Your task to perform on an android device: Open CNN.com Image 0: 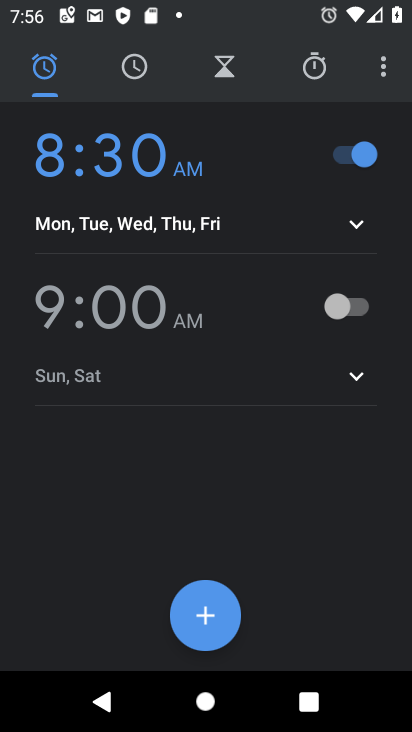
Step 0: press home button
Your task to perform on an android device: Open CNN.com Image 1: 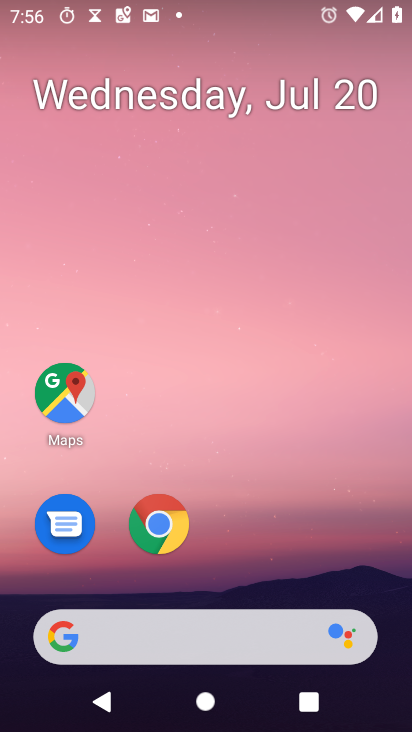
Step 1: click (159, 528)
Your task to perform on an android device: Open CNN.com Image 2: 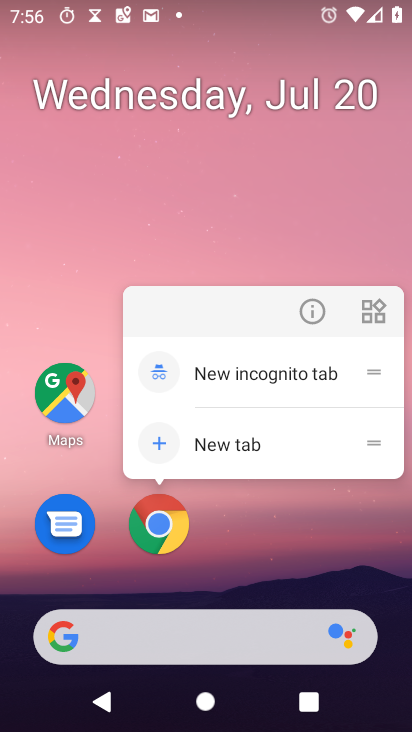
Step 2: click (159, 527)
Your task to perform on an android device: Open CNN.com Image 3: 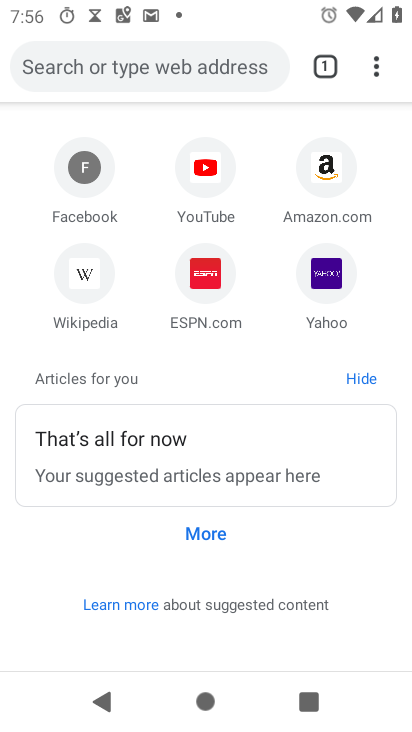
Step 3: click (186, 58)
Your task to perform on an android device: Open CNN.com Image 4: 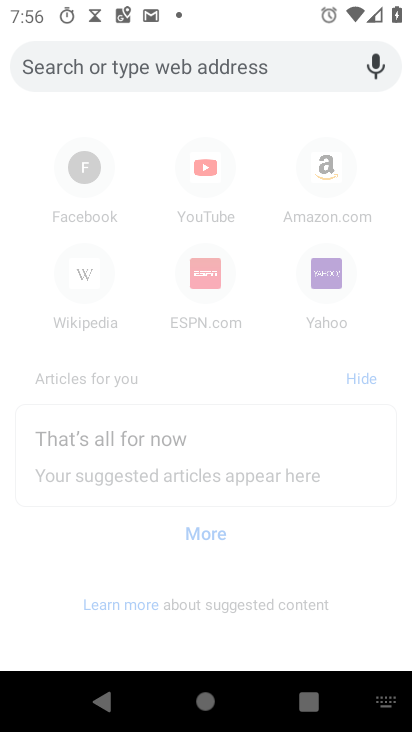
Step 4: type "cnn.com"
Your task to perform on an android device: Open CNN.com Image 5: 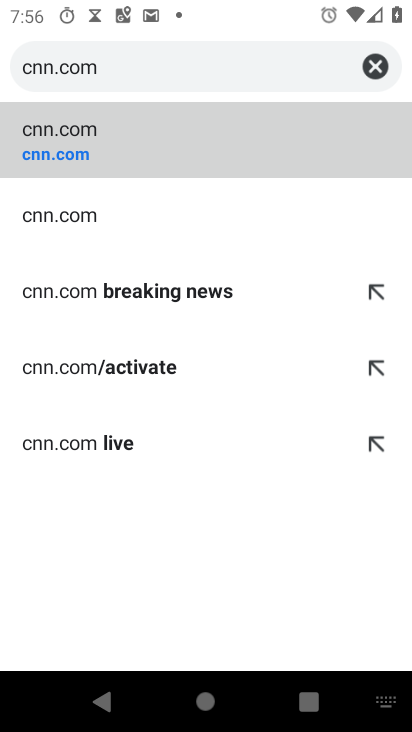
Step 5: click (71, 140)
Your task to perform on an android device: Open CNN.com Image 6: 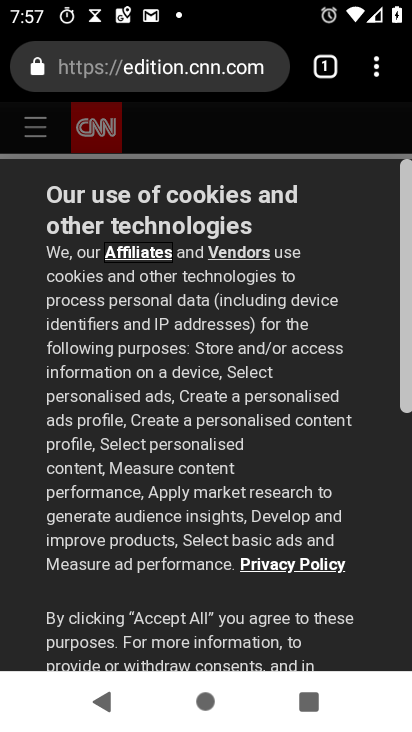
Step 6: task complete